Your task to perform on an android device: Is it going to rain today? Image 0: 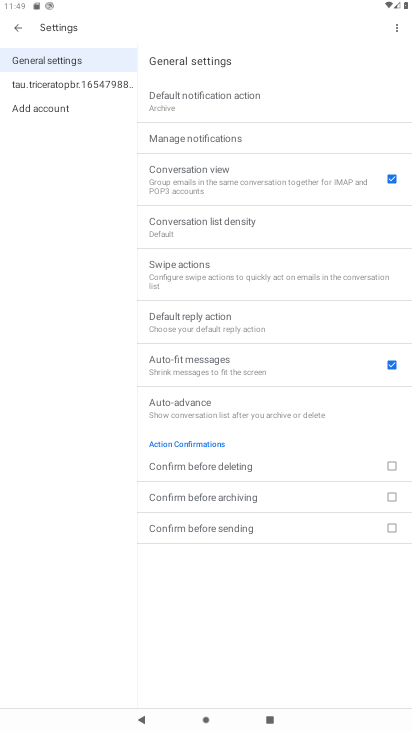
Step 0: press home button
Your task to perform on an android device: Is it going to rain today? Image 1: 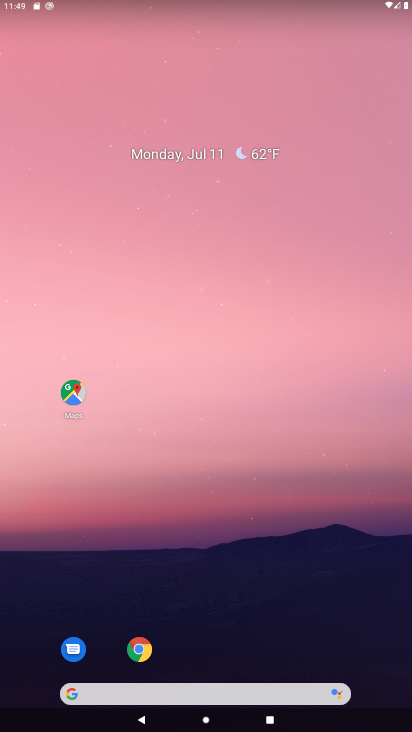
Step 1: click (173, 700)
Your task to perform on an android device: Is it going to rain today? Image 2: 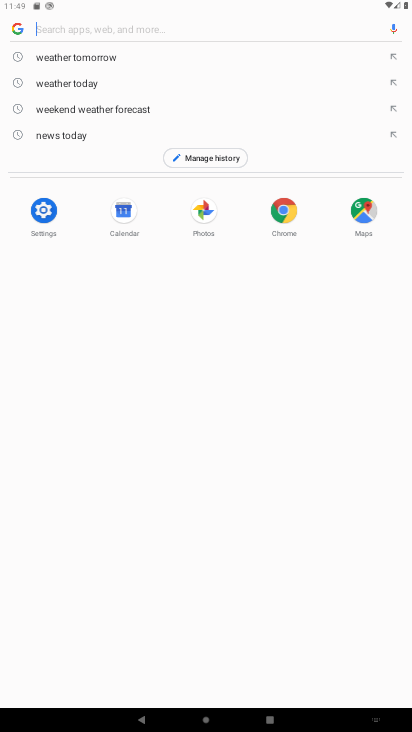
Step 2: type "is it going to rain today"
Your task to perform on an android device: Is it going to rain today? Image 3: 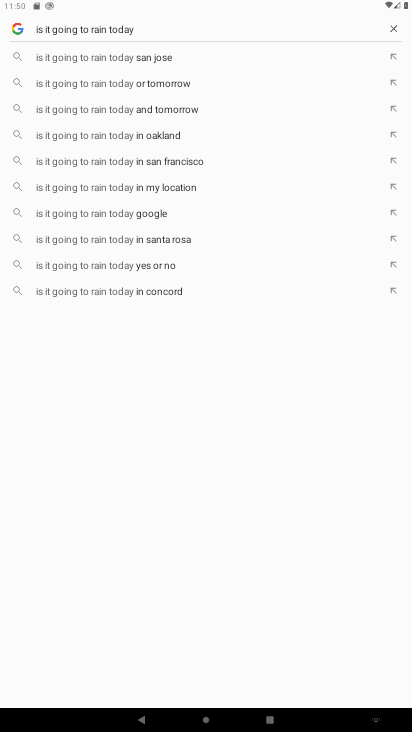
Step 3: click (103, 60)
Your task to perform on an android device: Is it going to rain today? Image 4: 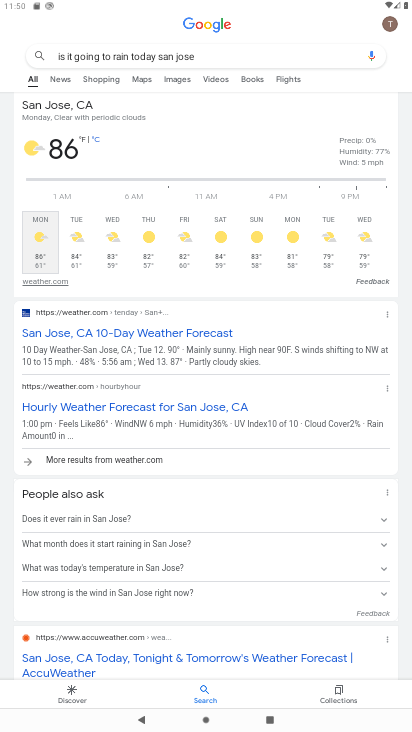
Step 4: task complete